Your task to perform on an android device: Search for vegetarian restaurants on Maps Image 0: 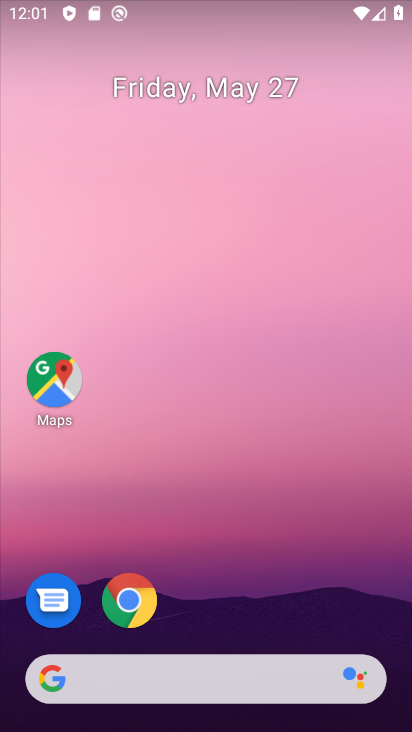
Step 0: drag from (261, 573) to (204, 88)
Your task to perform on an android device: Search for vegetarian restaurants on Maps Image 1: 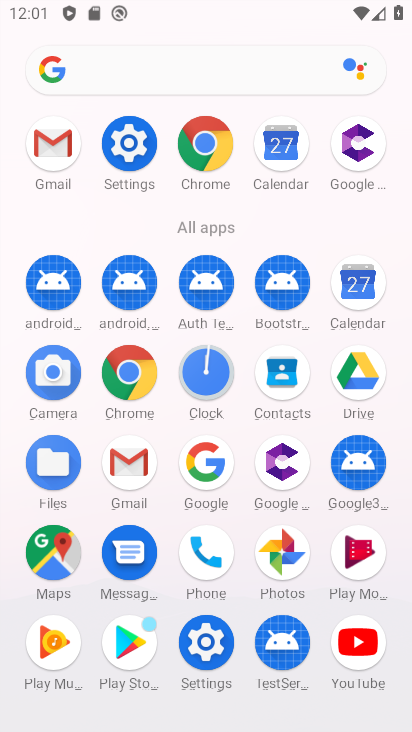
Step 1: drag from (8, 574) to (22, 284)
Your task to perform on an android device: Search for vegetarian restaurants on Maps Image 2: 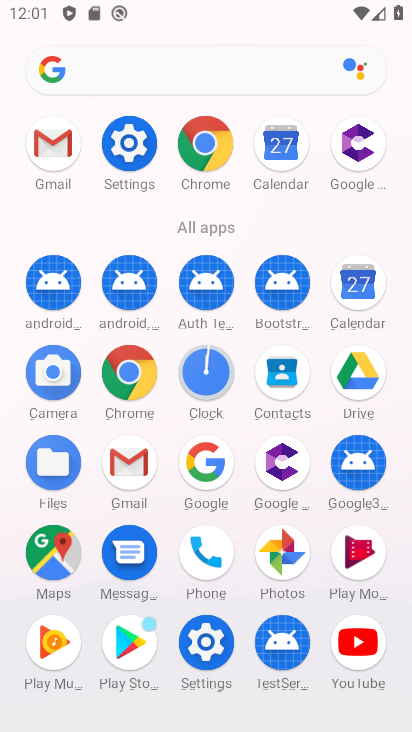
Step 2: click (50, 548)
Your task to perform on an android device: Search for vegetarian restaurants on Maps Image 3: 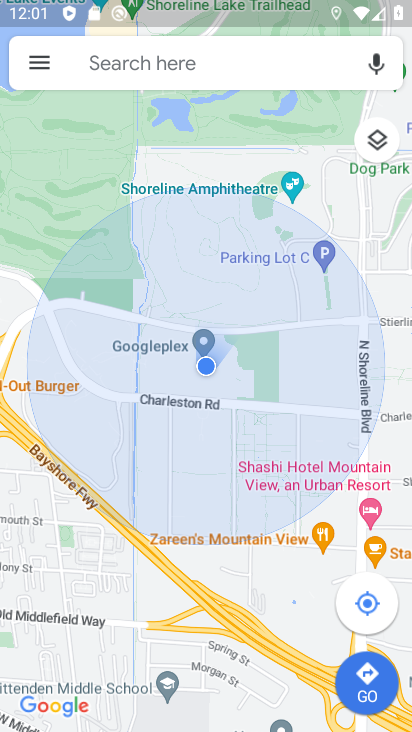
Step 3: click (283, 60)
Your task to perform on an android device: Search for vegetarian restaurants on Maps Image 4: 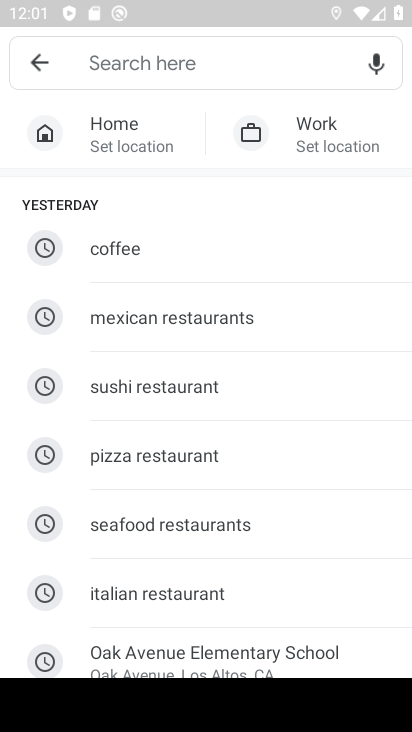
Step 4: drag from (253, 581) to (271, 276)
Your task to perform on an android device: Search for vegetarian restaurants on Maps Image 5: 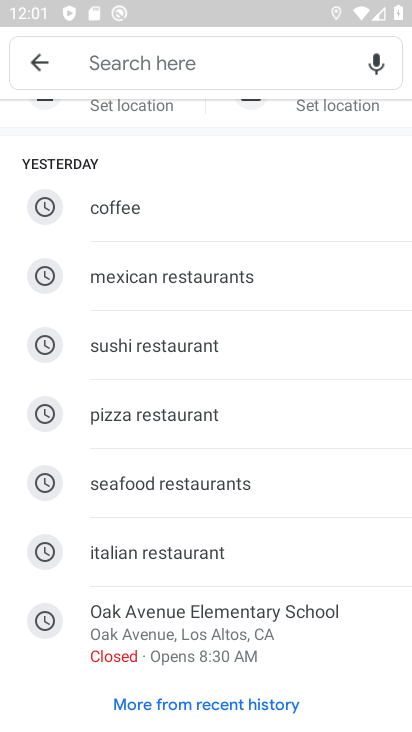
Step 5: drag from (272, 584) to (265, 257)
Your task to perform on an android device: Search for vegetarian restaurants on Maps Image 6: 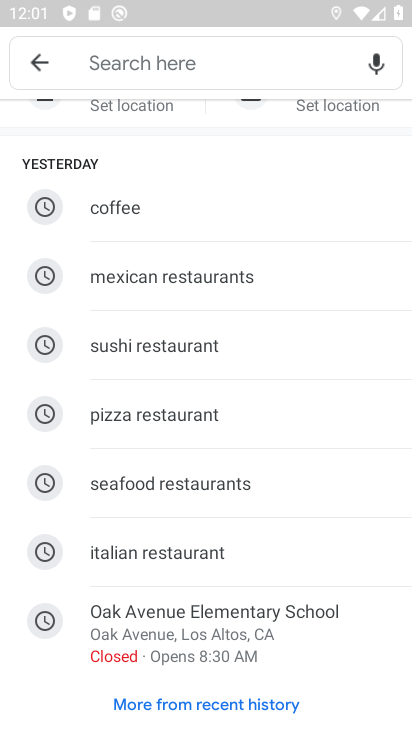
Step 6: click (215, 58)
Your task to perform on an android device: Search for vegetarian restaurants on Maps Image 7: 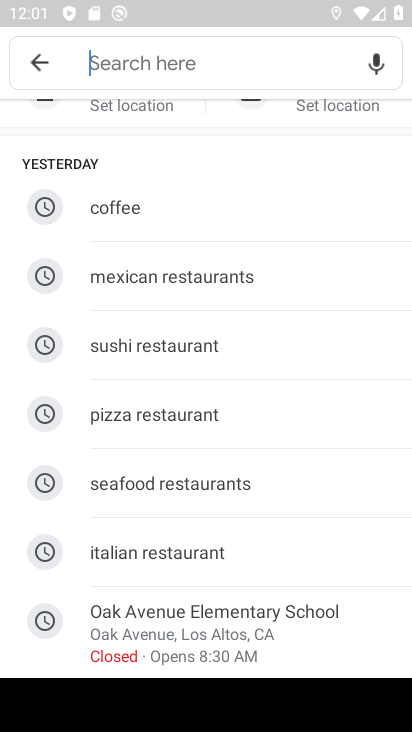
Step 7: type "vegetarian restaurants "
Your task to perform on an android device: Search for vegetarian restaurants on Maps Image 8: 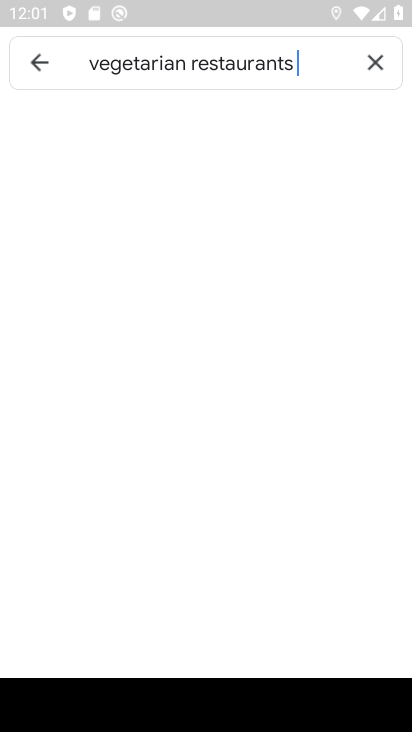
Step 8: type ""
Your task to perform on an android device: Search for vegetarian restaurants on Maps Image 9: 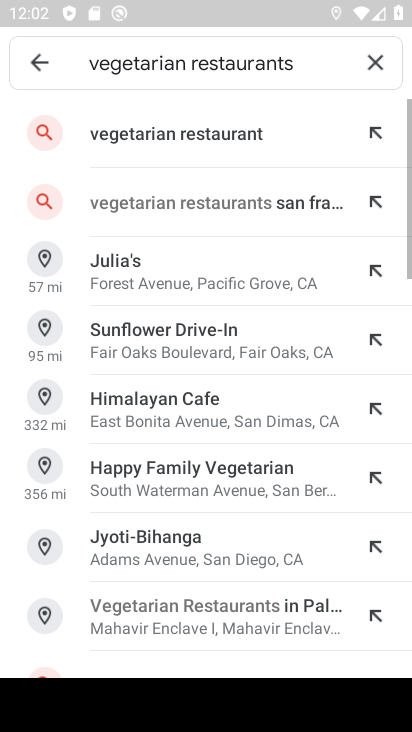
Step 9: click (215, 142)
Your task to perform on an android device: Search for vegetarian restaurants on Maps Image 10: 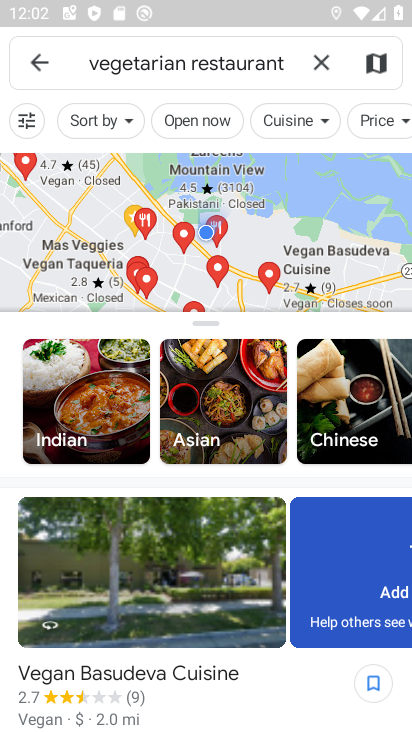
Step 10: task complete